Your task to perform on an android device: Open Chrome and go to settings Image 0: 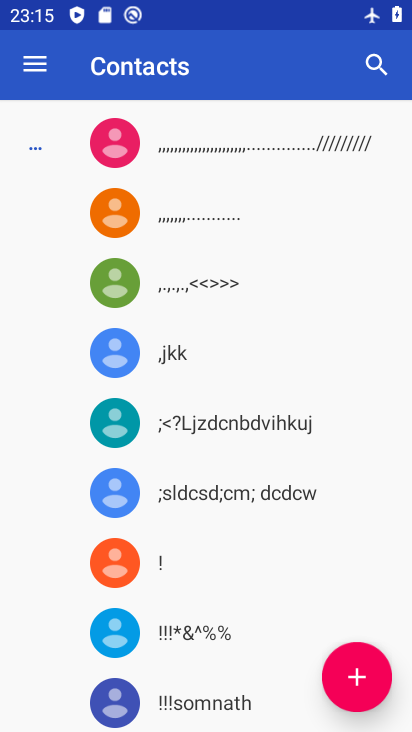
Step 0: press home button
Your task to perform on an android device: Open Chrome and go to settings Image 1: 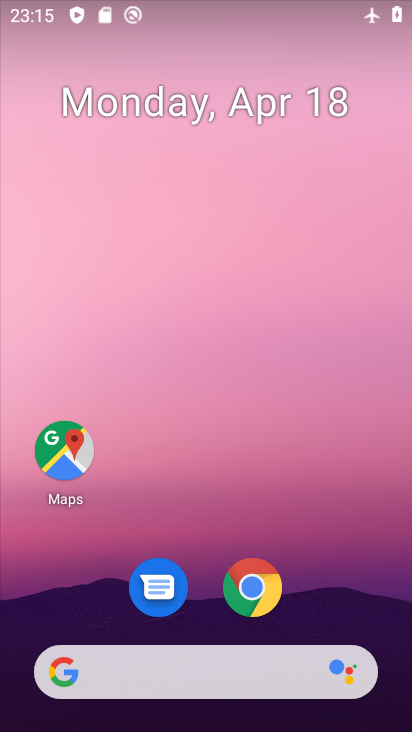
Step 1: click (277, 588)
Your task to perform on an android device: Open Chrome and go to settings Image 2: 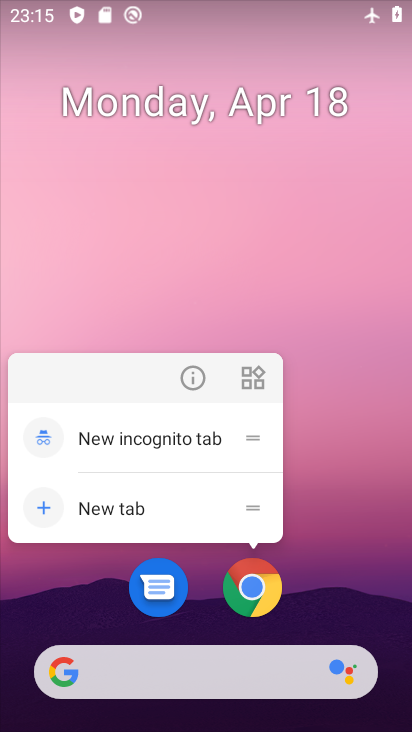
Step 2: click (263, 573)
Your task to perform on an android device: Open Chrome and go to settings Image 3: 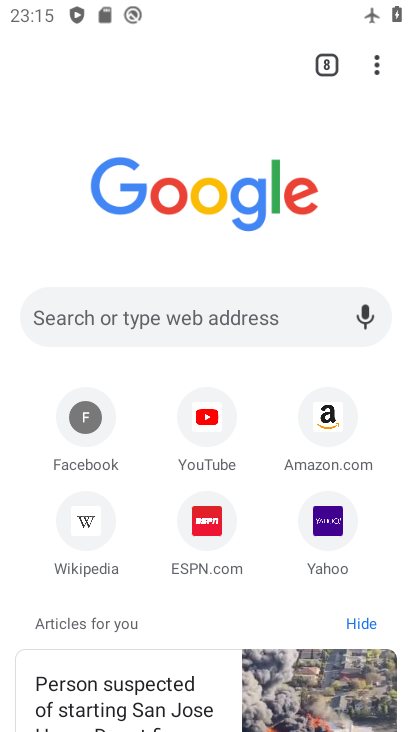
Step 3: click (379, 61)
Your task to perform on an android device: Open Chrome and go to settings Image 4: 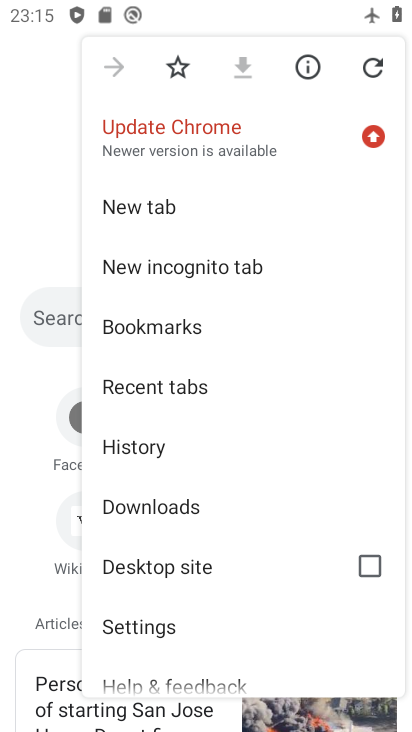
Step 4: click (149, 622)
Your task to perform on an android device: Open Chrome and go to settings Image 5: 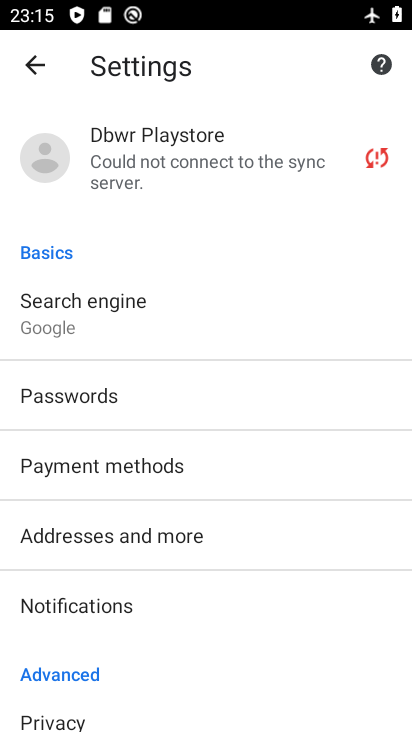
Step 5: task complete